Your task to perform on an android device: Play the last video I watched on Youtube Image 0: 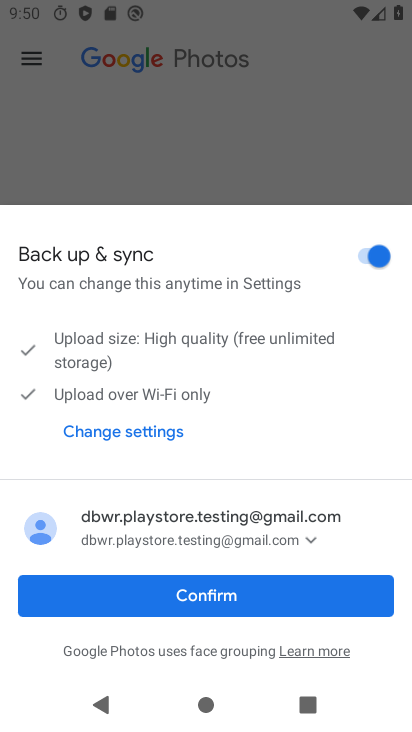
Step 0: click (293, 607)
Your task to perform on an android device: Play the last video I watched on Youtube Image 1: 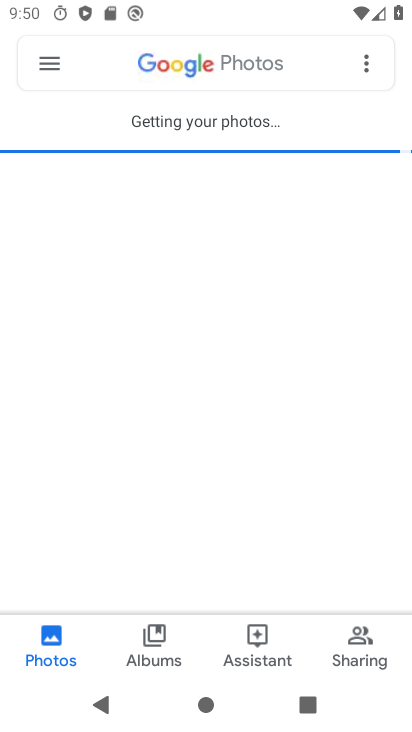
Step 1: press home button
Your task to perform on an android device: Play the last video I watched on Youtube Image 2: 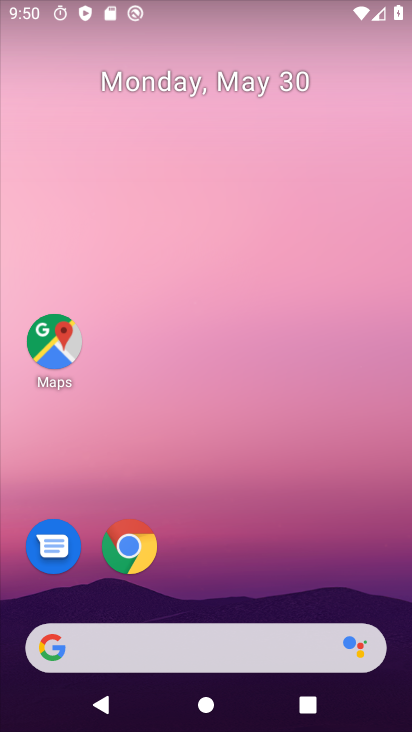
Step 2: drag from (250, 620) to (381, 144)
Your task to perform on an android device: Play the last video I watched on Youtube Image 3: 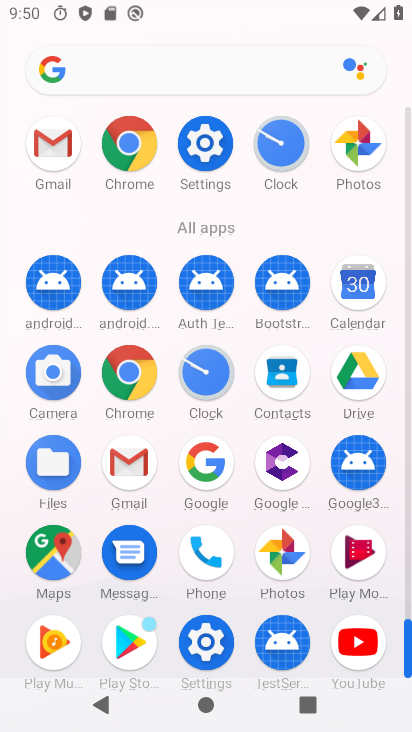
Step 3: click (343, 653)
Your task to perform on an android device: Play the last video I watched on Youtube Image 4: 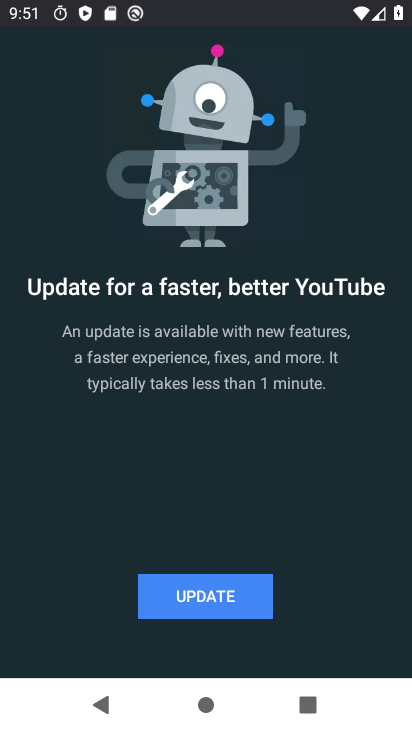
Step 4: click (246, 609)
Your task to perform on an android device: Play the last video I watched on Youtube Image 5: 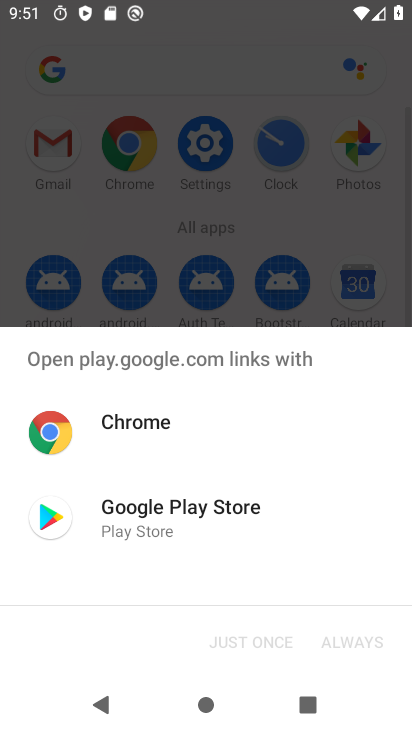
Step 5: click (229, 531)
Your task to perform on an android device: Play the last video I watched on Youtube Image 6: 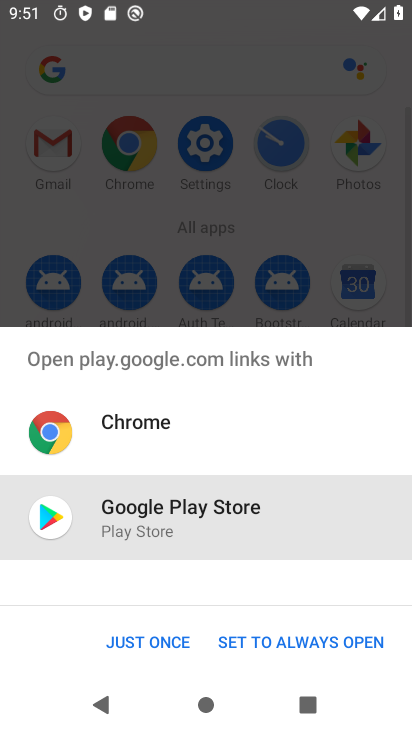
Step 6: click (145, 641)
Your task to perform on an android device: Play the last video I watched on Youtube Image 7: 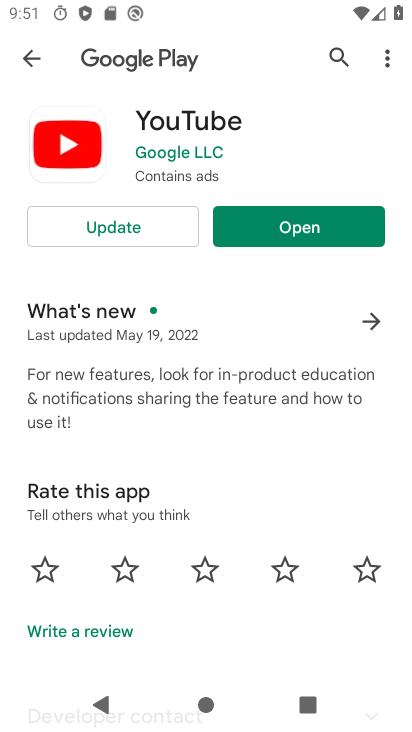
Step 7: click (139, 227)
Your task to perform on an android device: Play the last video I watched on Youtube Image 8: 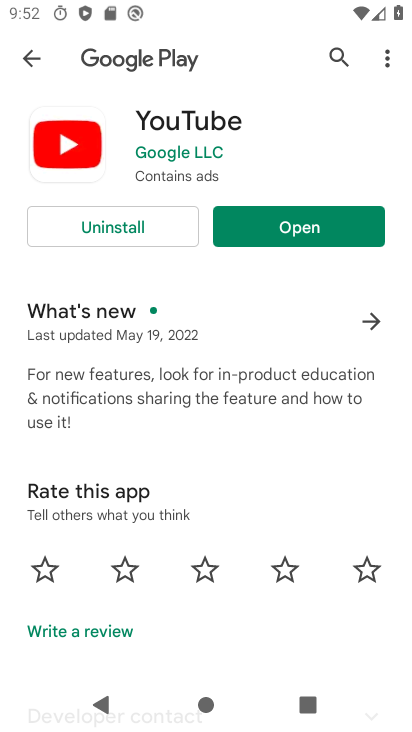
Step 8: click (335, 230)
Your task to perform on an android device: Play the last video I watched on Youtube Image 9: 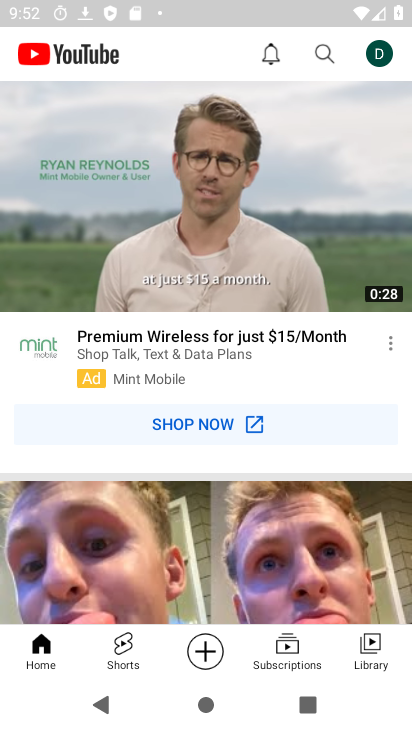
Step 9: click (385, 634)
Your task to perform on an android device: Play the last video I watched on Youtube Image 10: 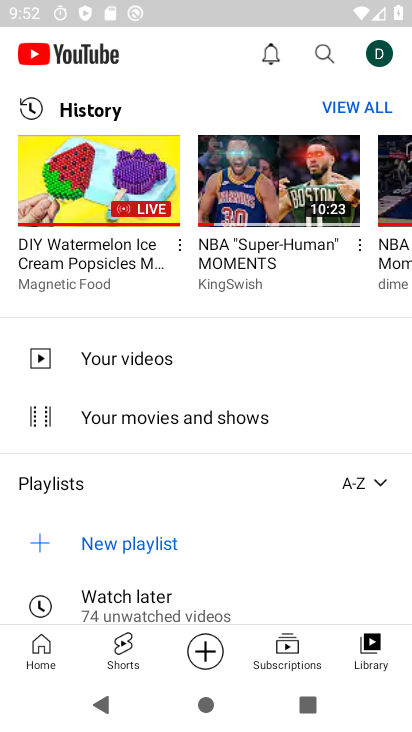
Step 10: click (72, 216)
Your task to perform on an android device: Play the last video I watched on Youtube Image 11: 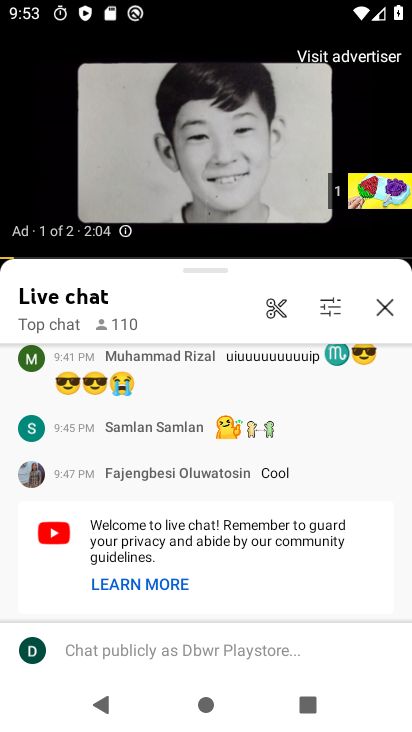
Step 11: click (385, 312)
Your task to perform on an android device: Play the last video I watched on Youtube Image 12: 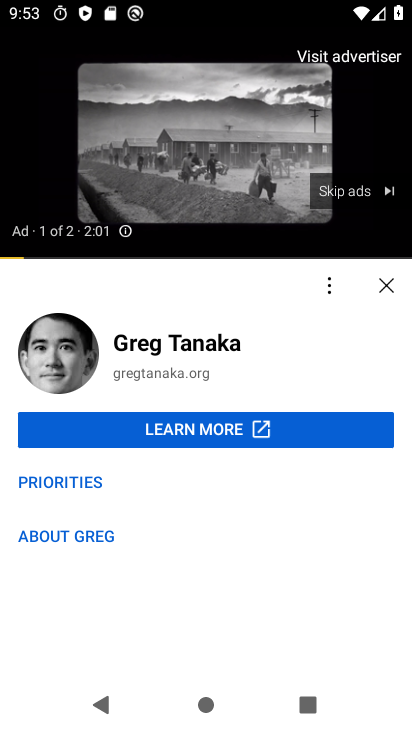
Step 12: click (381, 196)
Your task to perform on an android device: Play the last video I watched on Youtube Image 13: 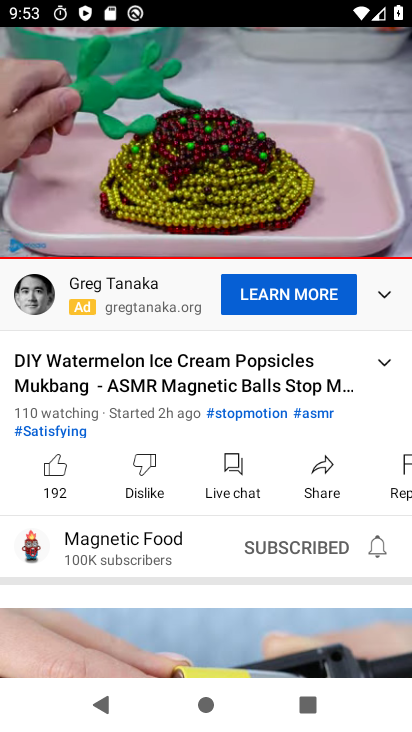
Step 13: task complete